Your task to perform on an android device: snooze an email in the gmail app Image 0: 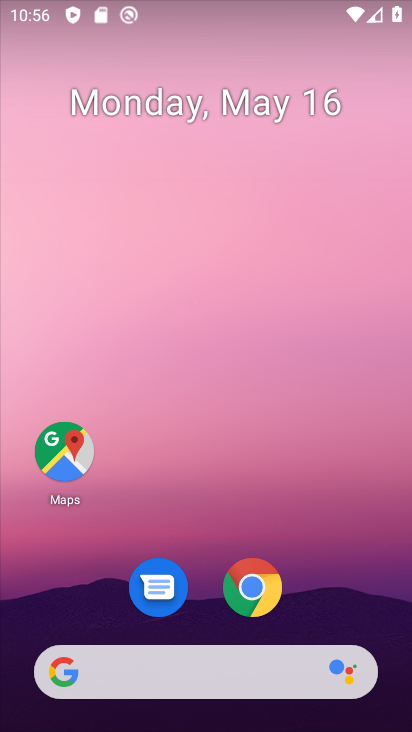
Step 0: drag from (386, 670) to (333, 33)
Your task to perform on an android device: snooze an email in the gmail app Image 1: 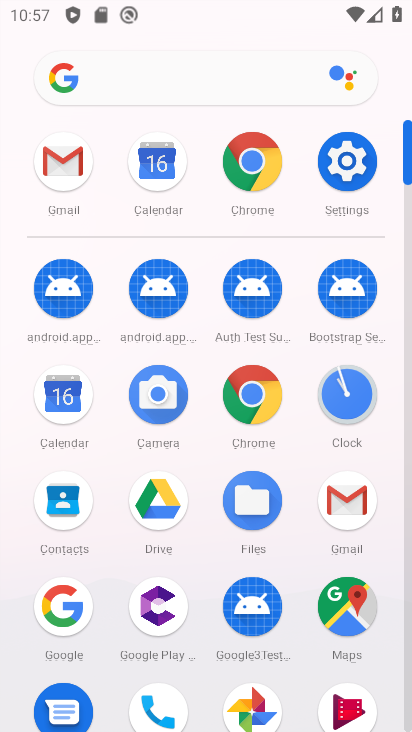
Step 1: click (339, 505)
Your task to perform on an android device: snooze an email in the gmail app Image 2: 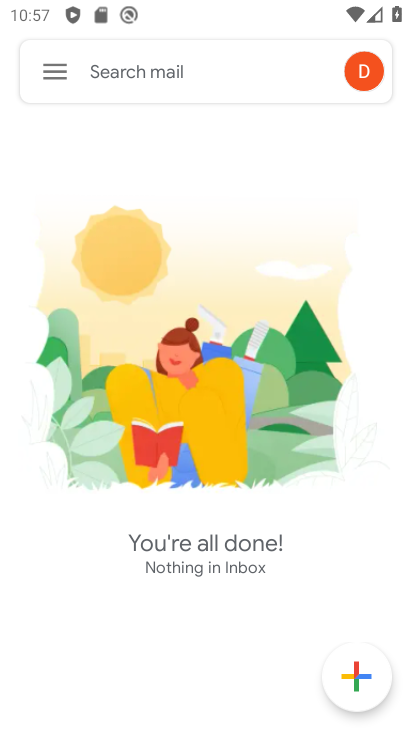
Step 2: task complete